Your task to perform on an android device: open chrome privacy settings Image 0: 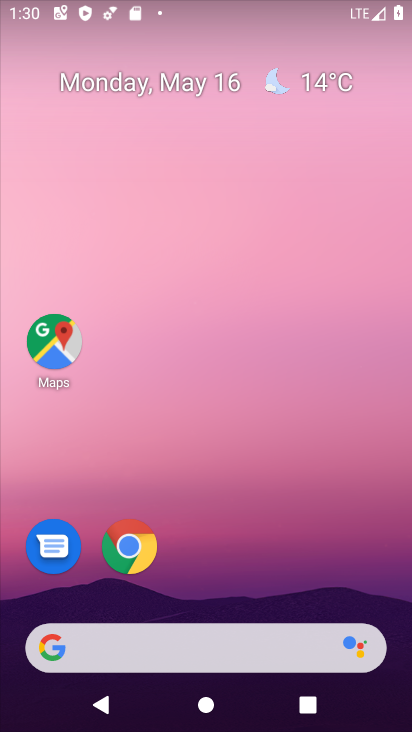
Step 0: drag from (260, 621) to (289, 264)
Your task to perform on an android device: open chrome privacy settings Image 1: 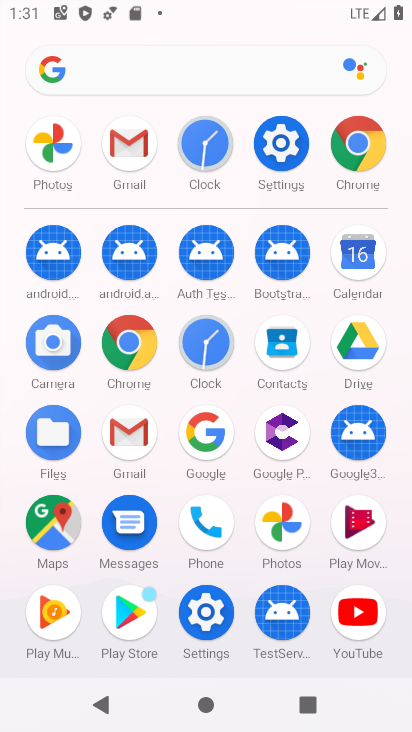
Step 1: click (355, 169)
Your task to perform on an android device: open chrome privacy settings Image 2: 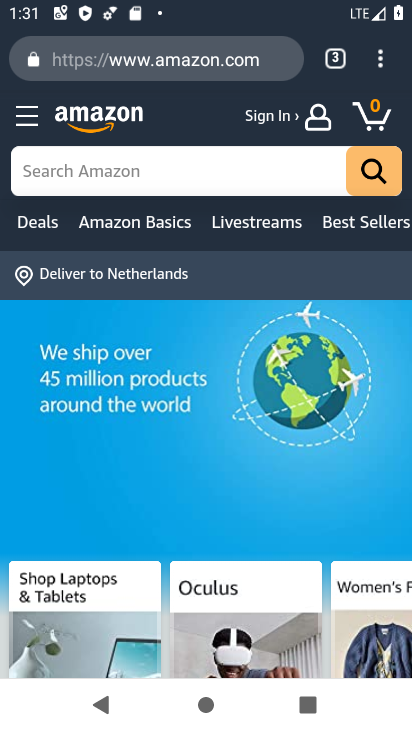
Step 2: click (373, 69)
Your task to perform on an android device: open chrome privacy settings Image 3: 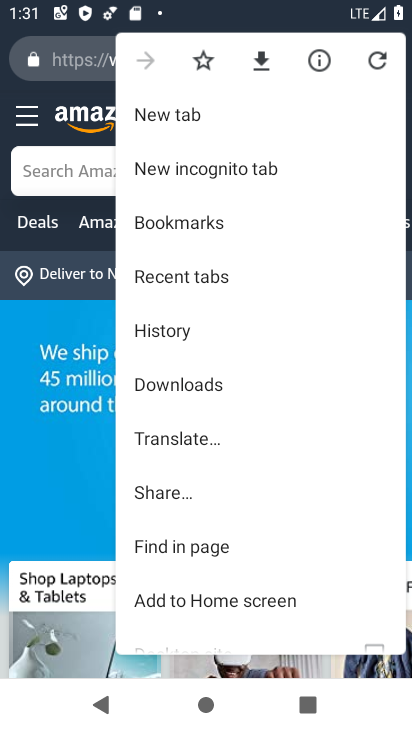
Step 3: drag from (228, 471) to (250, 269)
Your task to perform on an android device: open chrome privacy settings Image 4: 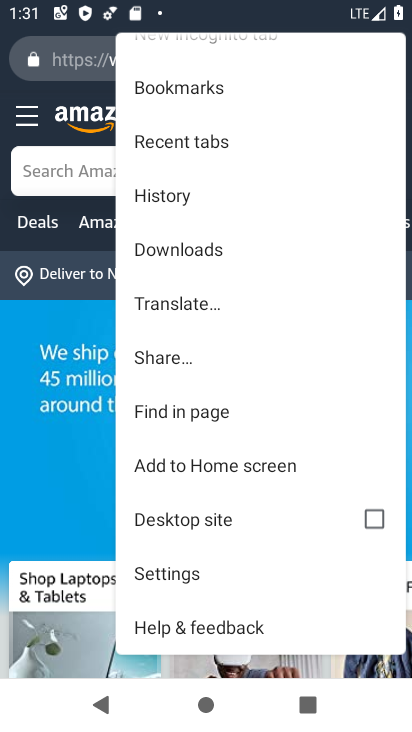
Step 4: click (200, 553)
Your task to perform on an android device: open chrome privacy settings Image 5: 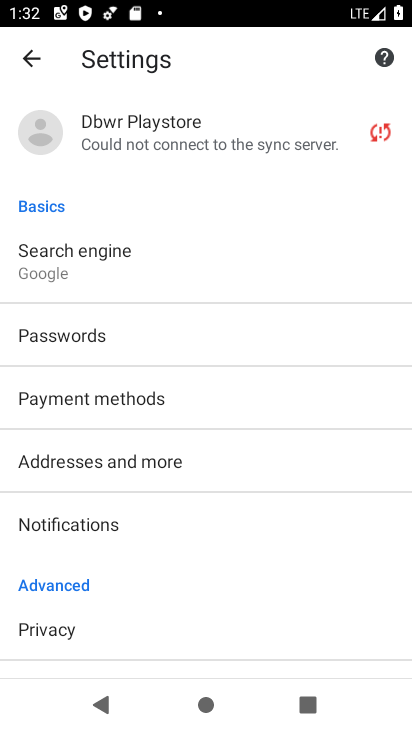
Step 5: click (102, 639)
Your task to perform on an android device: open chrome privacy settings Image 6: 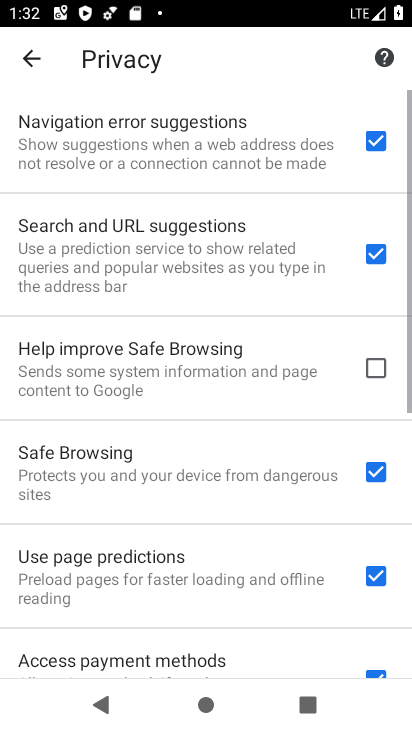
Step 6: task complete